Your task to perform on an android device: Is it going to rain tomorrow? Image 0: 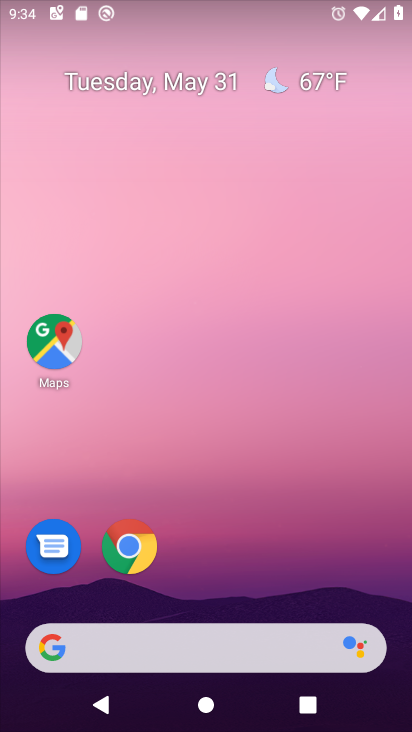
Step 0: drag from (211, 557) to (257, 229)
Your task to perform on an android device: Is it going to rain tomorrow? Image 1: 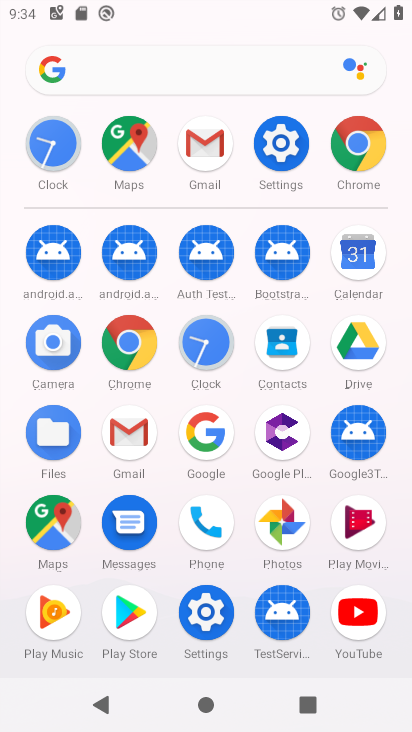
Step 1: press home button
Your task to perform on an android device: Is it going to rain tomorrow? Image 2: 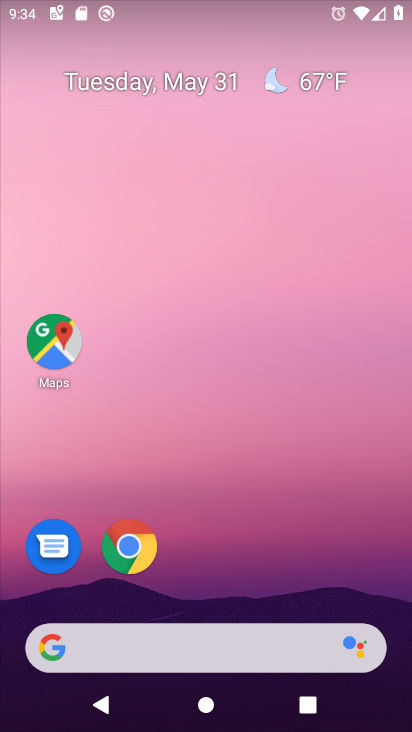
Step 2: click (298, 69)
Your task to perform on an android device: Is it going to rain tomorrow? Image 3: 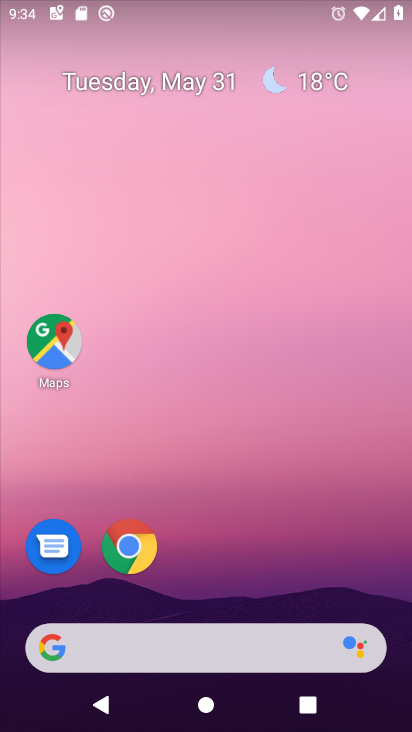
Step 3: click (306, 76)
Your task to perform on an android device: Is it going to rain tomorrow? Image 4: 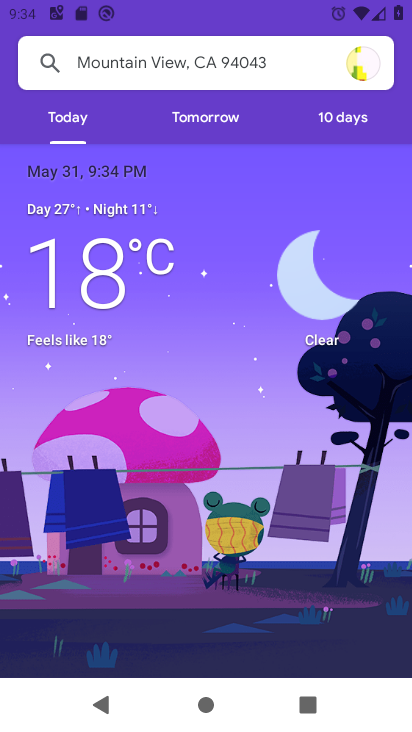
Step 4: task complete